Your task to perform on an android device: Go to Google Image 0: 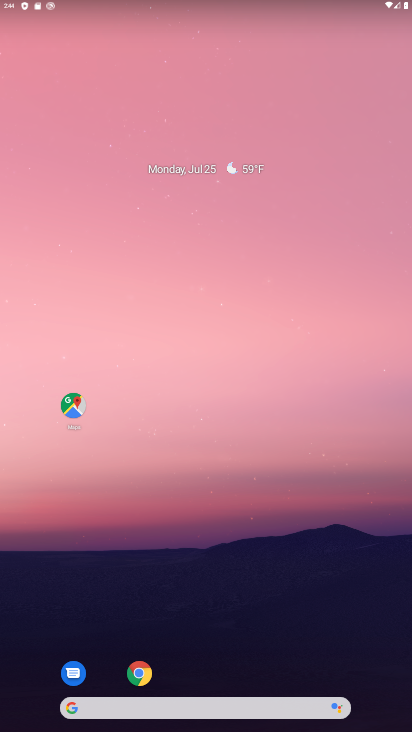
Step 0: click (140, 670)
Your task to perform on an android device: Go to Google Image 1: 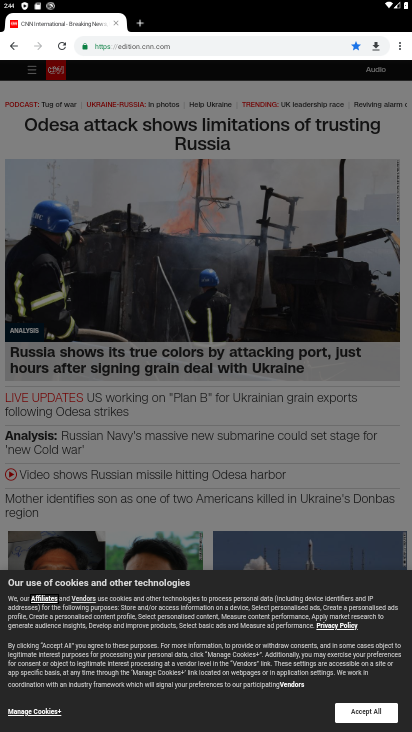
Step 1: task complete